Your task to perform on an android device: remove spam from my inbox in the gmail app Image 0: 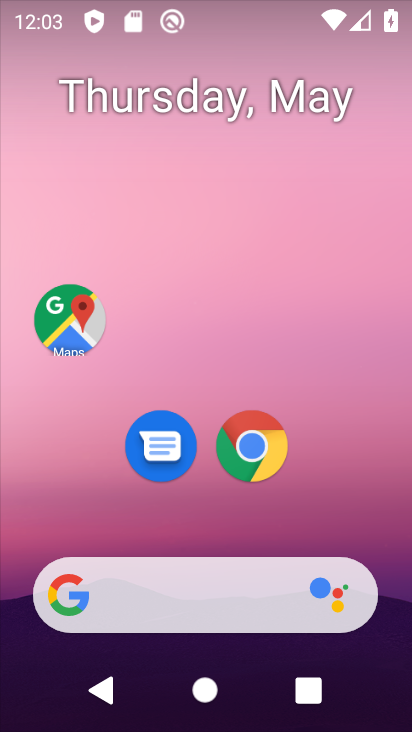
Step 0: drag from (311, 396) to (264, 16)
Your task to perform on an android device: remove spam from my inbox in the gmail app Image 1: 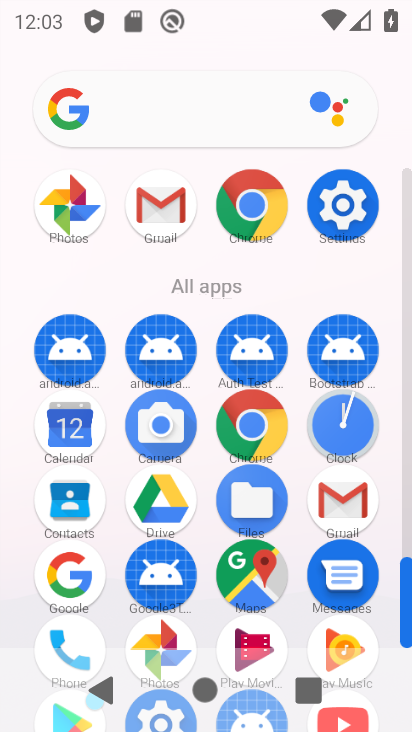
Step 1: click (165, 216)
Your task to perform on an android device: remove spam from my inbox in the gmail app Image 2: 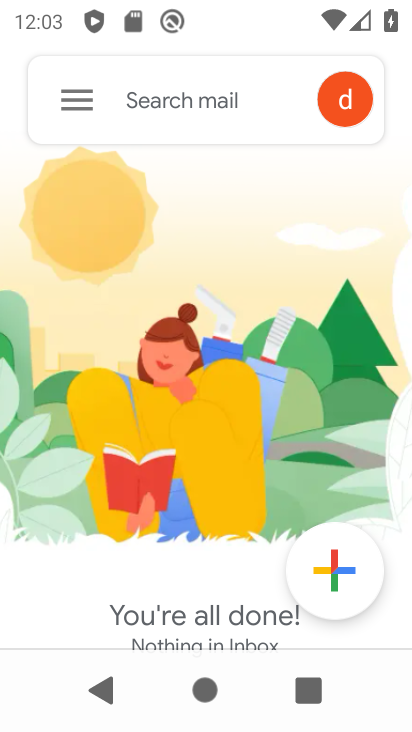
Step 2: click (66, 104)
Your task to perform on an android device: remove spam from my inbox in the gmail app Image 3: 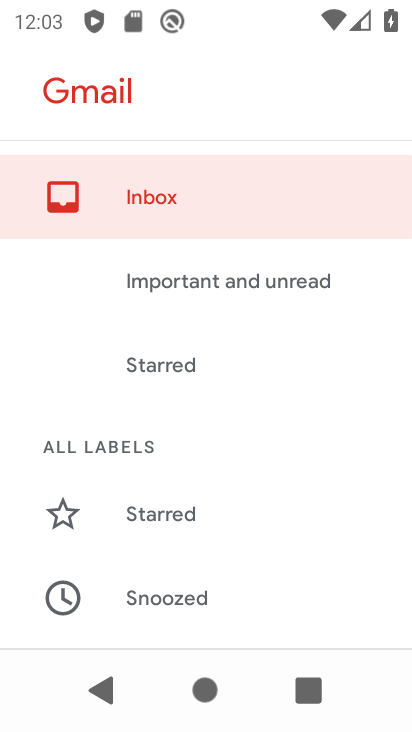
Step 3: task complete